Your task to perform on an android device: Open ESPN.com Image 0: 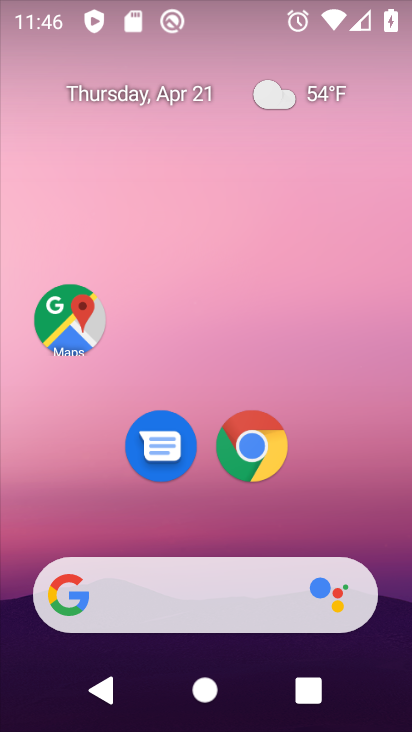
Step 0: click (263, 447)
Your task to perform on an android device: Open ESPN.com Image 1: 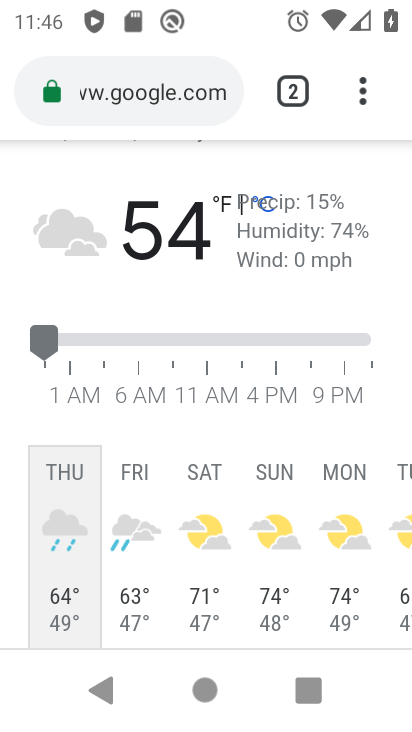
Step 1: click (212, 104)
Your task to perform on an android device: Open ESPN.com Image 2: 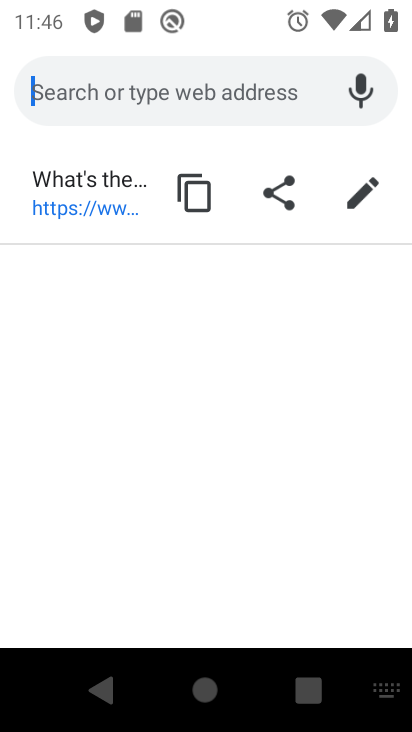
Step 2: type "espn.com"
Your task to perform on an android device: Open ESPN.com Image 3: 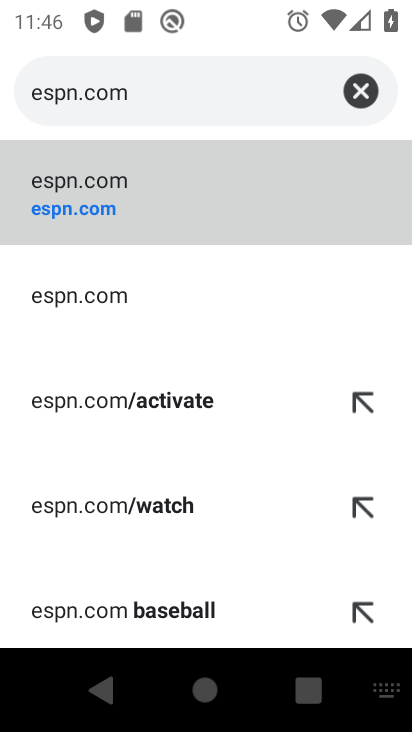
Step 3: click (83, 209)
Your task to perform on an android device: Open ESPN.com Image 4: 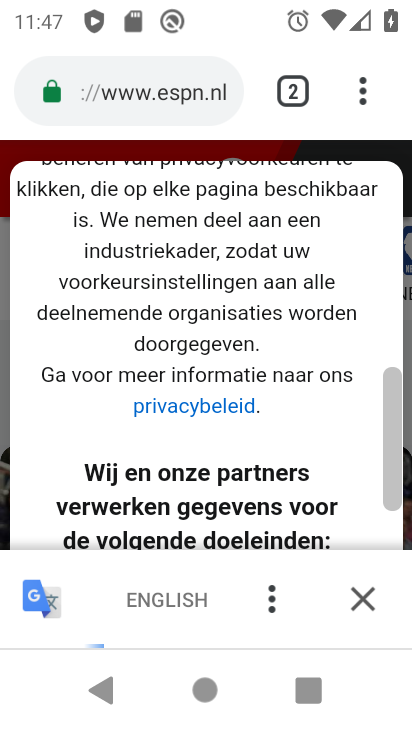
Step 4: drag from (331, 502) to (320, 238)
Your task to perform on an android device: Open ESPN.com Image 5: 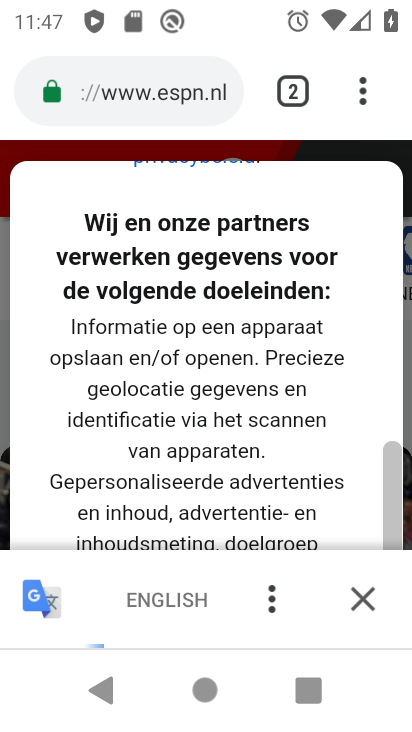
Step 5: drag from (326, 473) to (305, 247)
Your task to perform on an android device: Open ESPN.com Image 6: 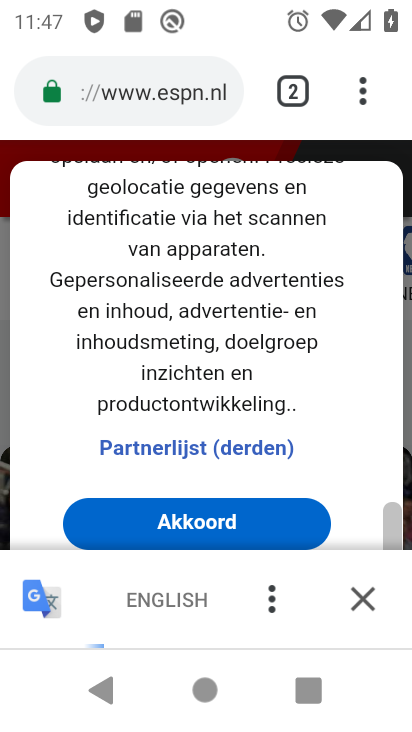
Step 6: click (239, 519)
Your task to perform on an android device: Open ESPN.com Image 7: 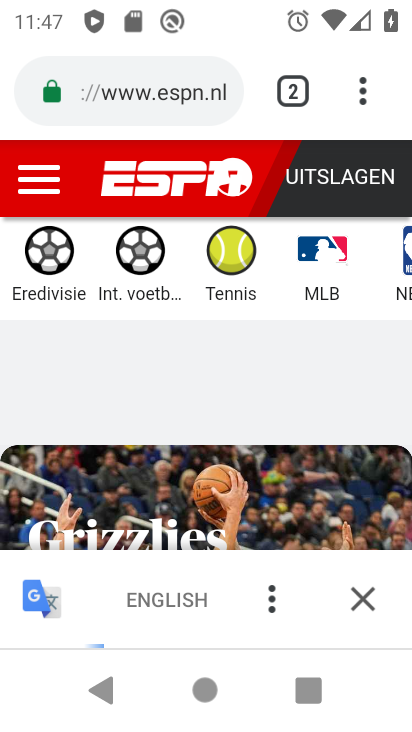
Step 7: task complete